Your task to perform on an android device: Open the web browser Image 0: 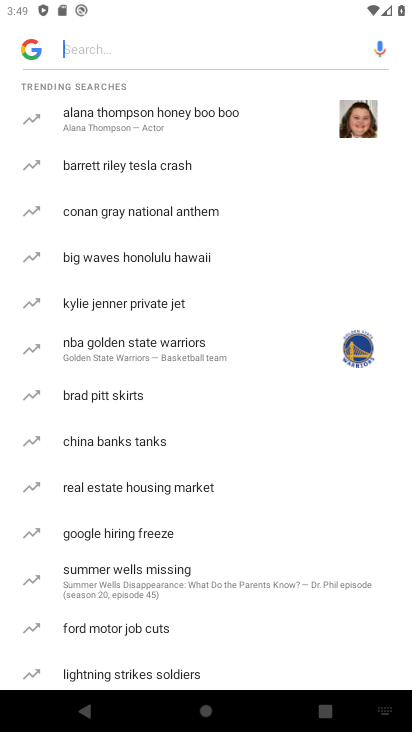
Step 0: type " web browser"
Your task to perform on an android device: Open the web browser Image 1: 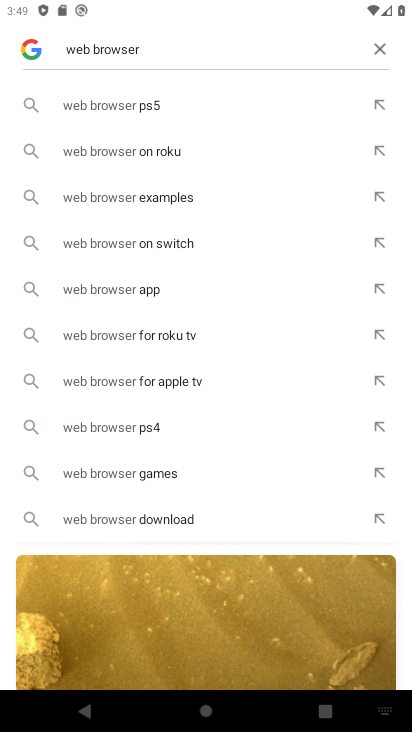
Step 1: click (160, 107)
Your task to perform on an android device: Open the web browser Image 2: 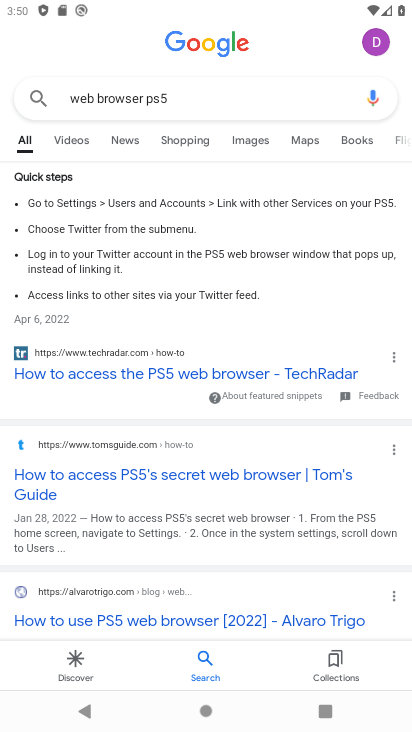
Step 2: task complete